Your task to perform on an android device: What's on my calendar tomorrow? Image 0: 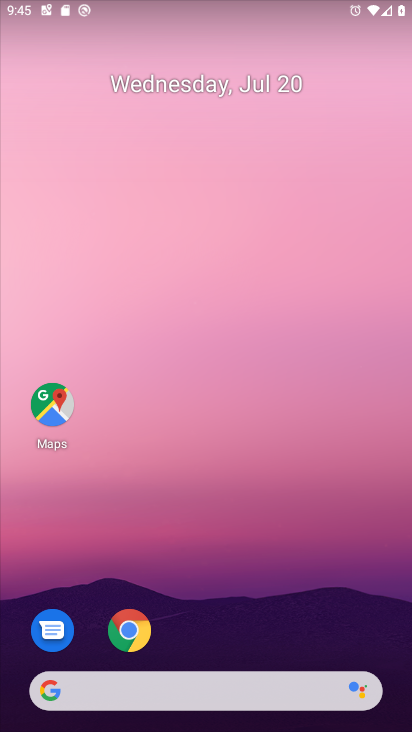
Step 0: press home button
Your task to perform on an android device: What's on my calendar tomorrow? Image 1: 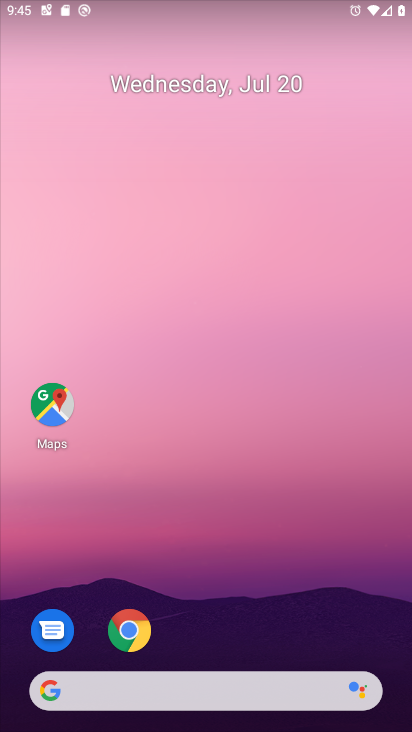
Step 1: drag from (220, 720) to (193, 186)
Your task to perform on an android device: What's on my calendar tomorrow? Image 2: 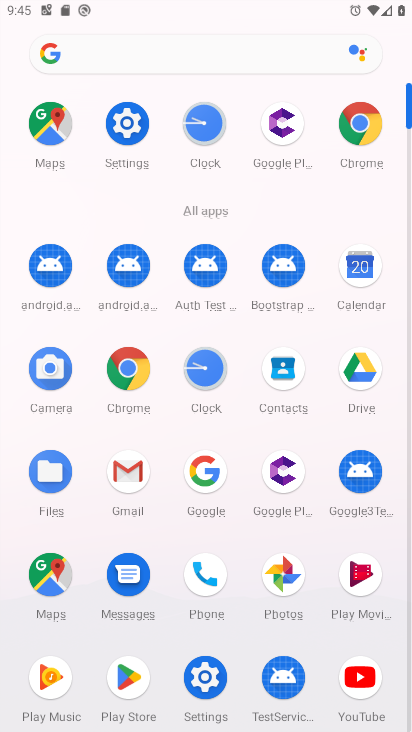
Step 2: click (362, 263)
Your task to perform on an android device: What's on my calendar tomorrow? Image 3: 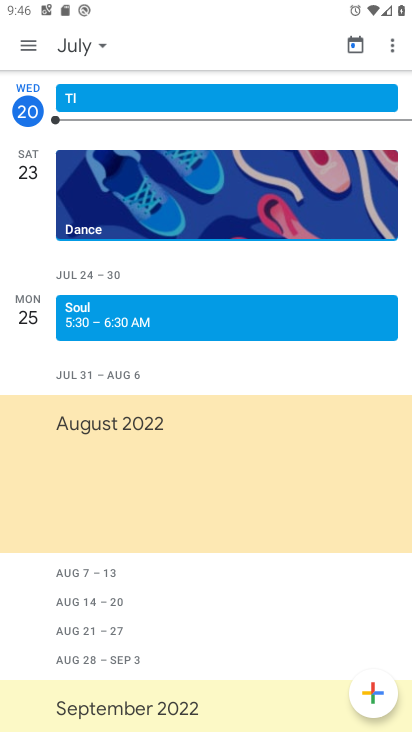
Step 3: click (100, 39)
Your task to perform on an android device: What's on my calendar tomorrow? Image 4: 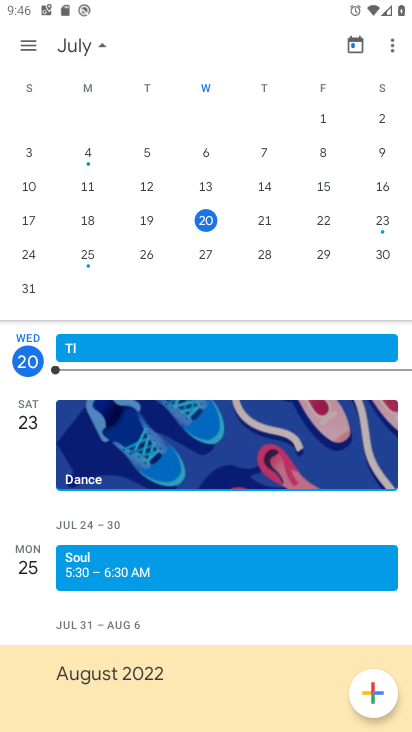
Step 4: click (259, 214)
Your task to perform on an android device: What's on my calendar tomorrow? Image 5: 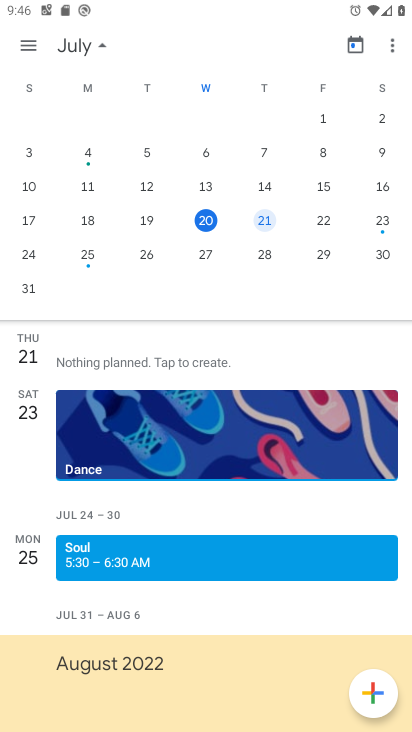
Step 5: task complete